Your task to perform on an android device: stop showing notifications on the lock screen Image 0: 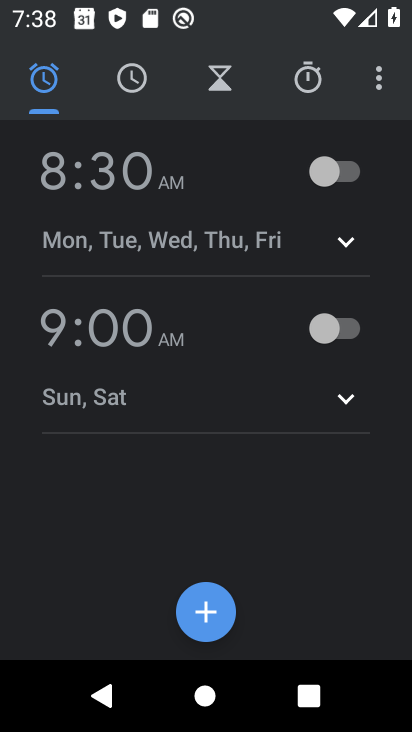
Step 0: press home button
Your task to perform on an android device: stop showing notifications on the lock screen Image 1: 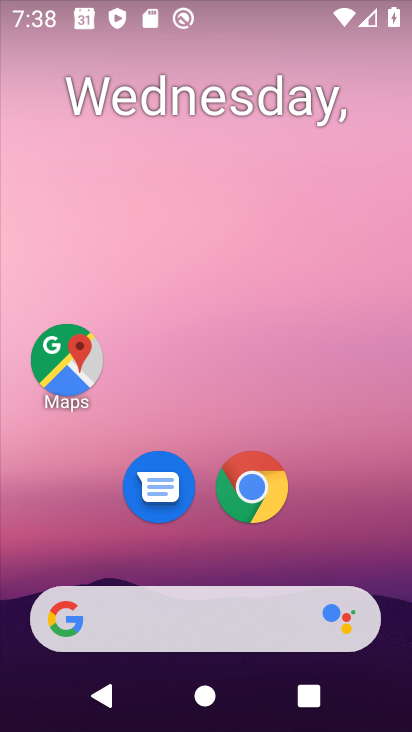
Step 1: drag from (360, 584) to (279, 13)
Your task to perform on an android device: stop showing notifications on the lock screen Image 2: 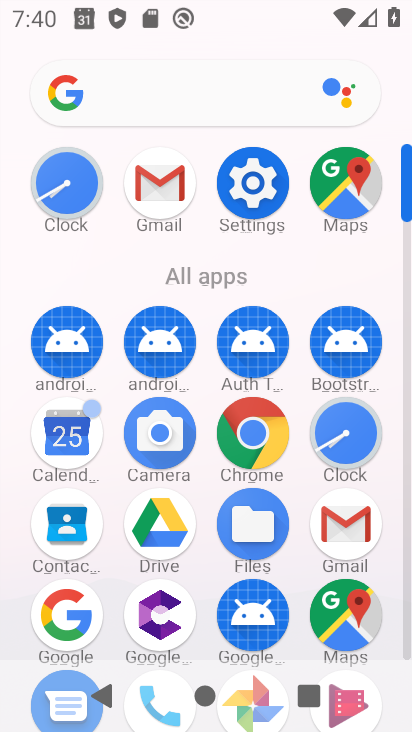
Step 2: click (255, 202)
Your task to perform on an android device: stop showing notifications on the lock screen Image 3: 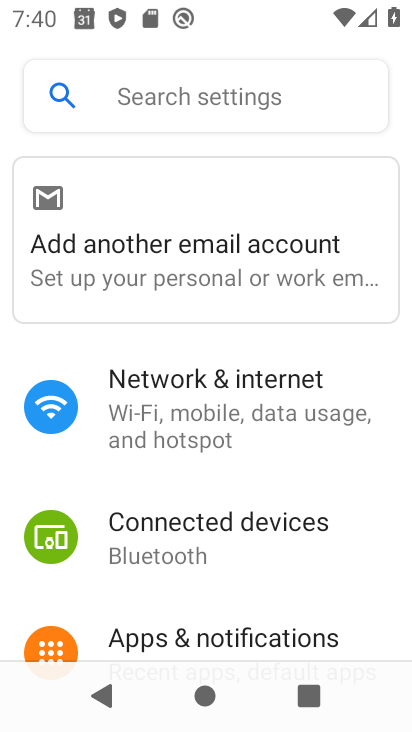
Step 3: click (265, 638)
Your task to perform on an android device: stop showing notifications on the lock screen Image 4: 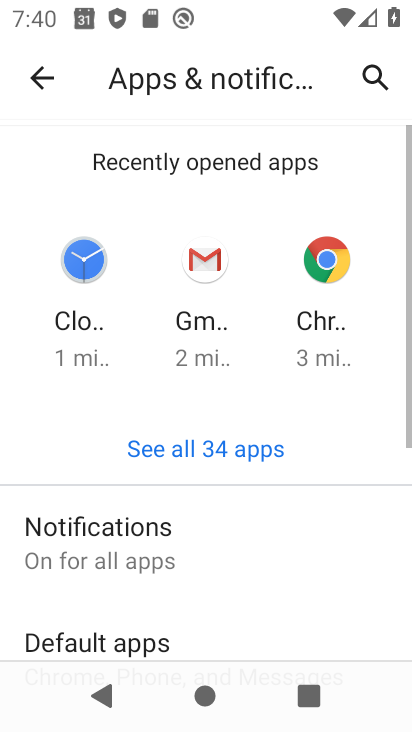
Step 4: click (93, 535)
Your task to perform on an android device: stop showing notifications on the lock screen Image 5: 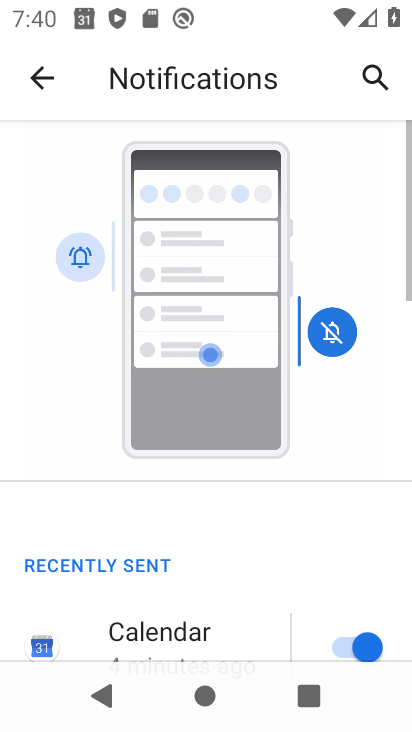
Step 5: drag from (131, 588) to (103, 110)
Your task to perform on an android device: stop showing notifications on the lock screen Image 6: 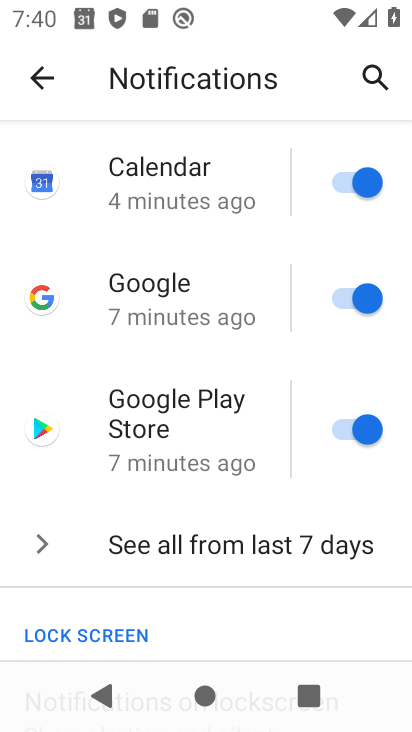
Step 6: drag from (145, 523) to (149, 323)
Your task to perform on an android device: stop showing notifications on the lock screen Image 7: 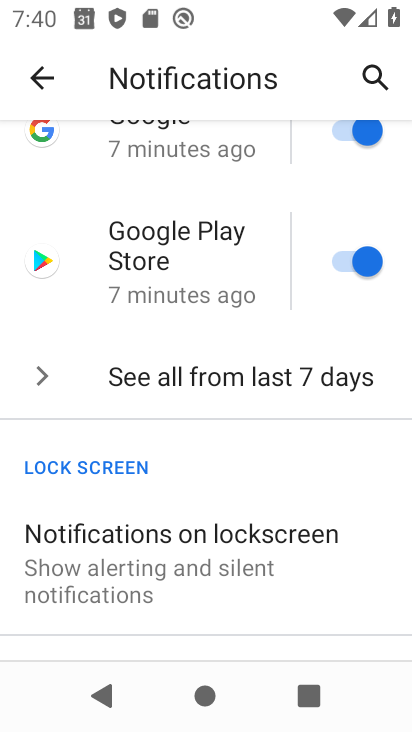
Step 7: click (128, 548)
Your task to perform on an android device: stop showing notifications on the lock screen Image 8: 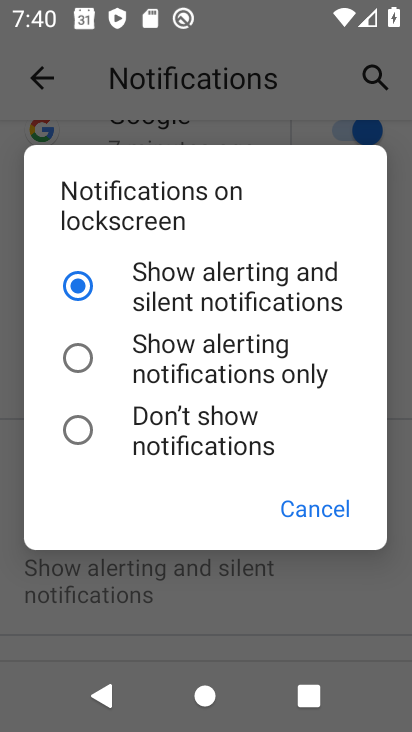
Step 8: click (76, 434)
Your task to perform on an android device: stop showing notifications on the lock screen Image 9: 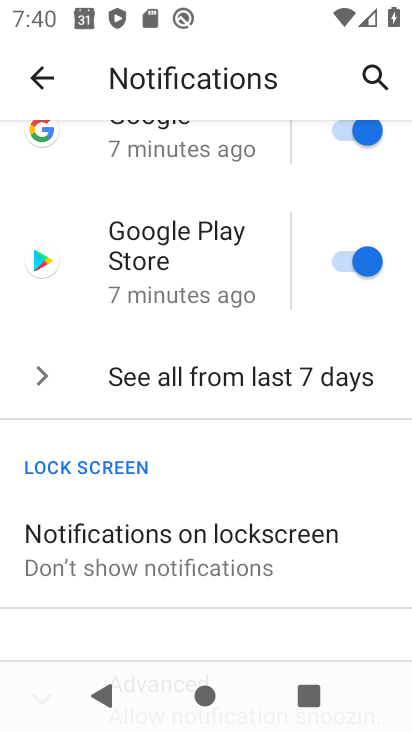
Step 9: task complete